Your task to perform on an android device: What's the weather going to be this weekend? Image 0: 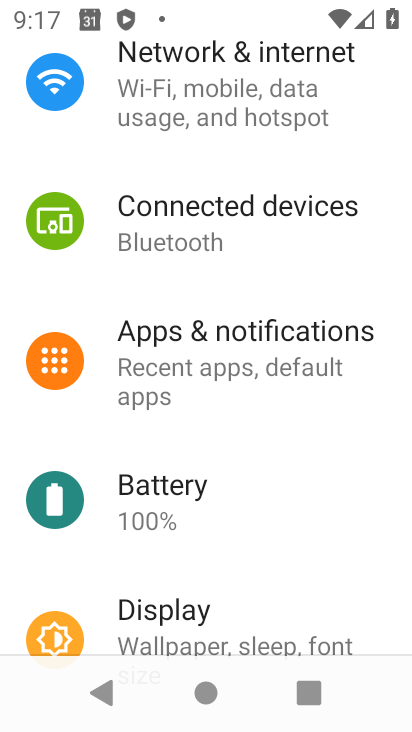
Step 0: press home button
Your task to perform on an android device: What's the weather going to be this weekend? Image 1: 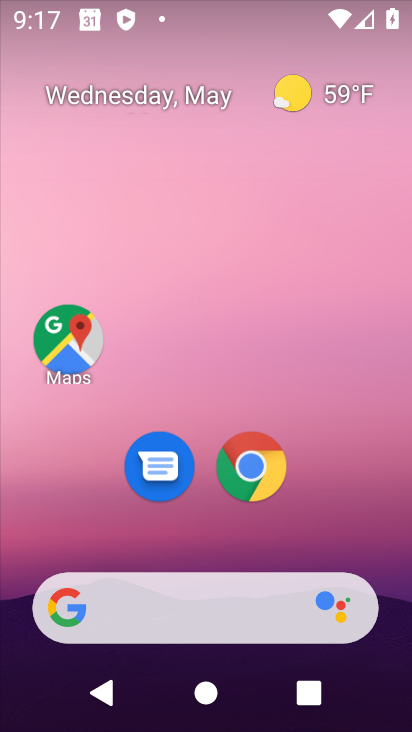
Step 1: click (230, 470)
Your task to perform on an android device: What's the weather going to be this weekend? Image 2: 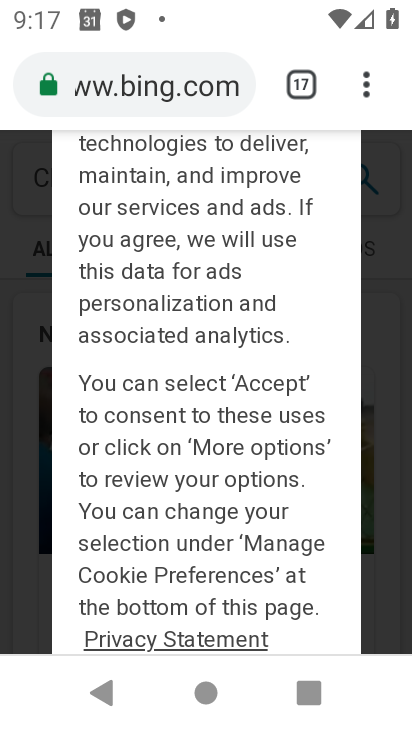
Step 2: click (355, 81)
Your task to perform on an android device: What's the weather going to be this weekend? Image 3: 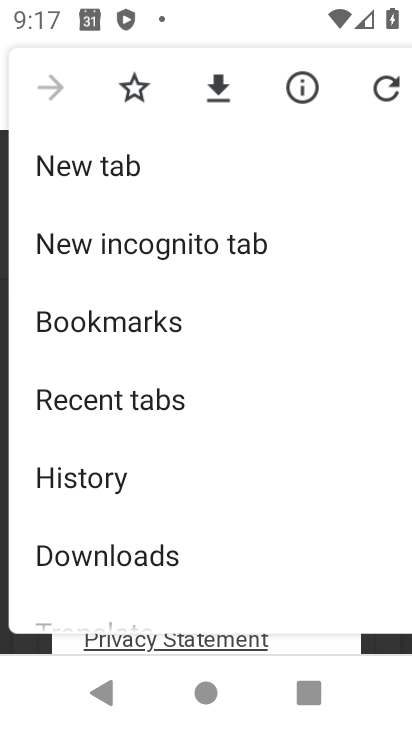
Step 3: click (77, 152)
Your task to perform on an android device: What's the weather going to be this weekend? Image 4: 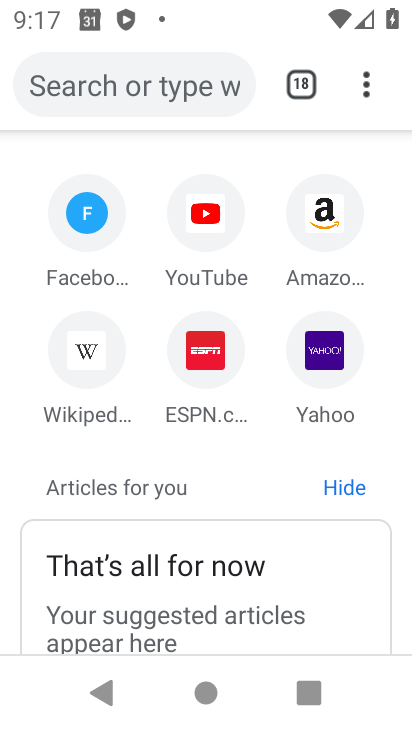
Step 4: drag from (405, 709) to (375, 730)
Your task to perform on an android device: What's the weather going to be this weekend? Image 5: 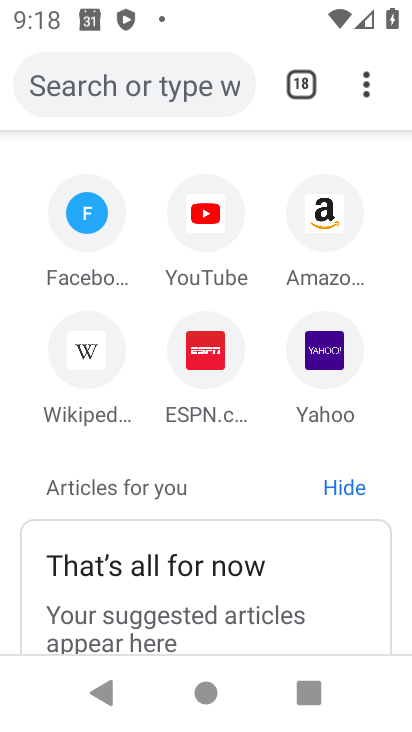
Step 5: click (87, 92)
Your task to perform on an android device: What's the weather going to be this weekend? Image 6: 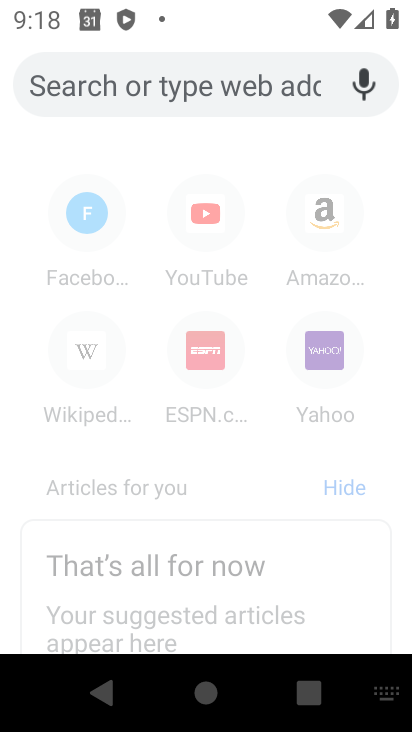
Step 6: type "What's the weather going to be this weekend?"
Your task to perform on an android device: What's the weather going to be this weekend? Image 7: 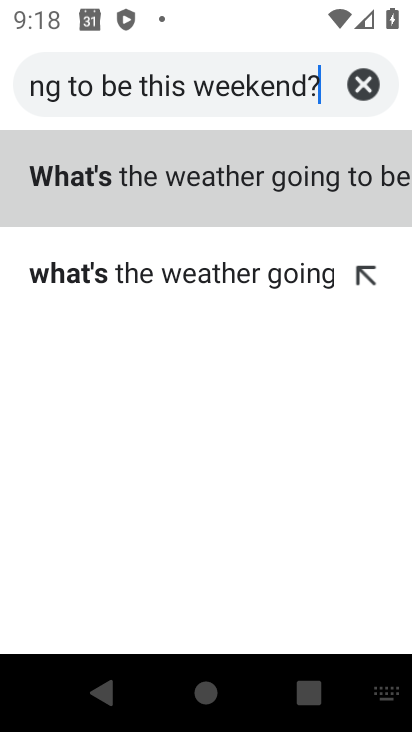
Step 7: click (181, 189)
Your task to perform on an android device: What's the weather going to be this weekend? Image 8: 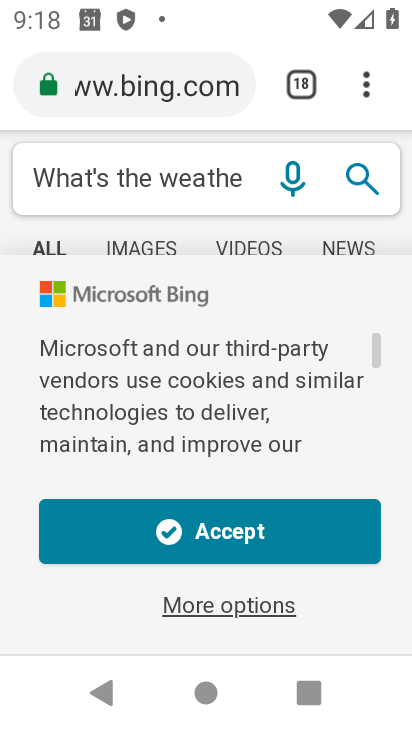
Step 8: click (227, 518)
Your task to perform on an android device: What's the weather going to be this weekend? Image 9: 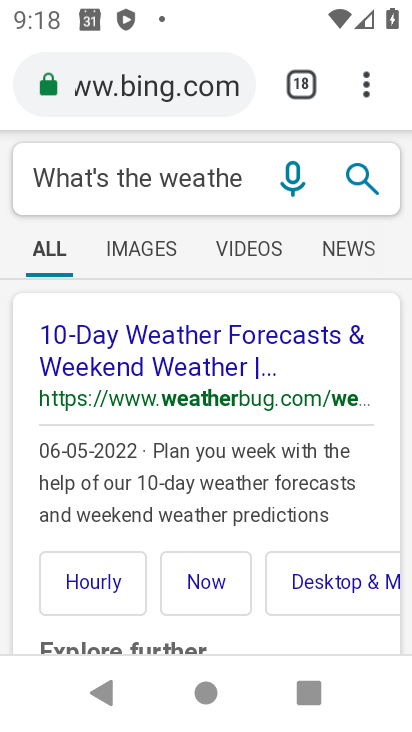
Step 9: task complete